Your task to perform on an android device: Open the phone app and click the voicemail tab. Image 0: 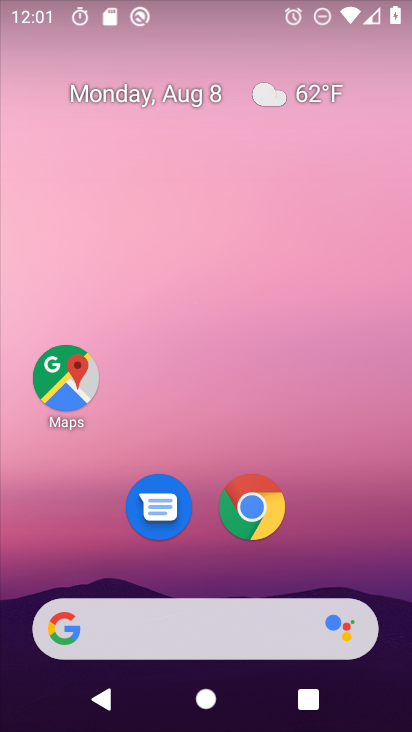
Step 0: drag from (366, 568) to (327, 56)
Your task to perform on an android device: Open the phone app and click the voicemail tab. Image 1: 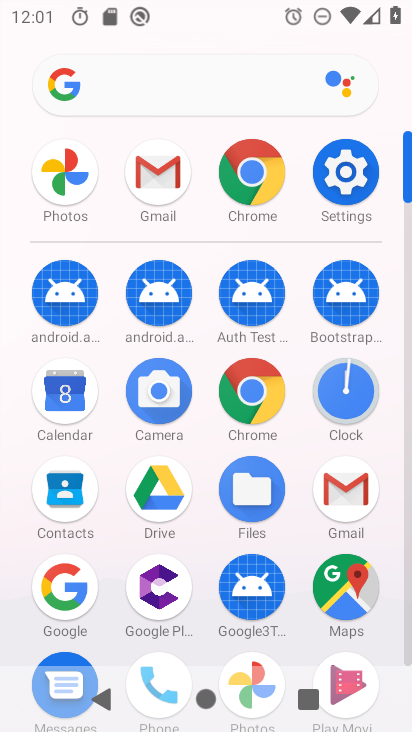
Step 1: drag from (287, 535) to (343, 187)
Your task to perform on an android device: Open the phone app and click the voicemail tab. Image 2: 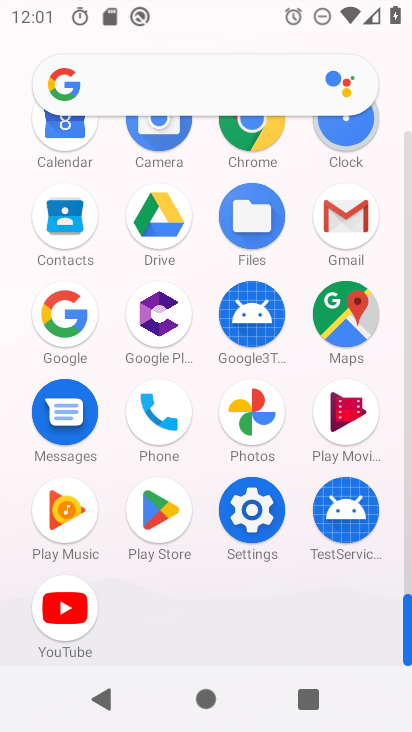
Step 2: click (163, 425)
Your task to perform on an android device: Open the phone app and click the voicemail tab. Image 3: 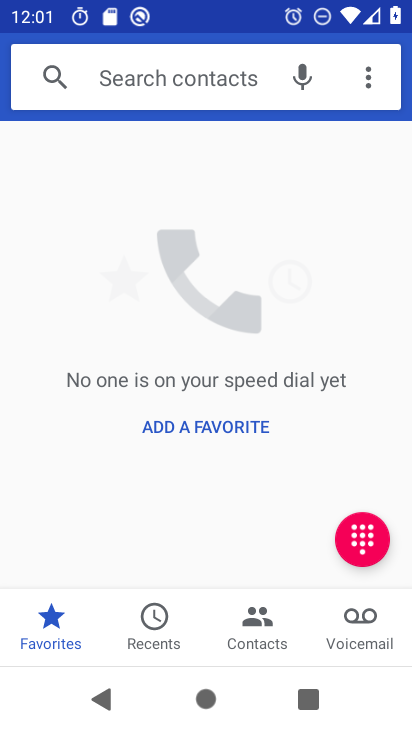
Step 3: click (368, 638)
Your task to perform on an android device: Open the phone app and click the voicemail tab. Image 4: 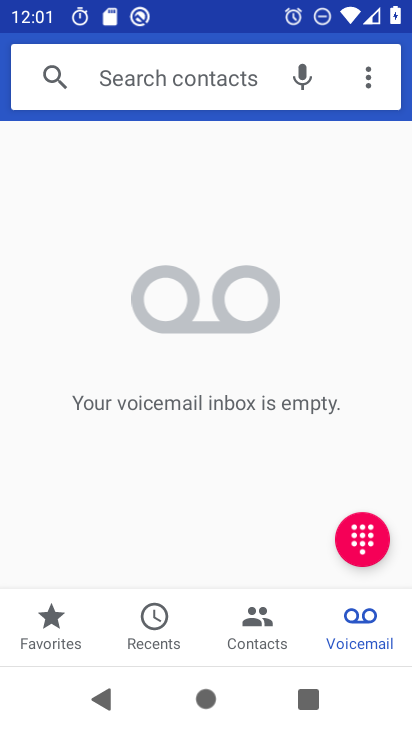
Step 4: task complete